Your task to perform on an android device: Go to battery settings Image 0: 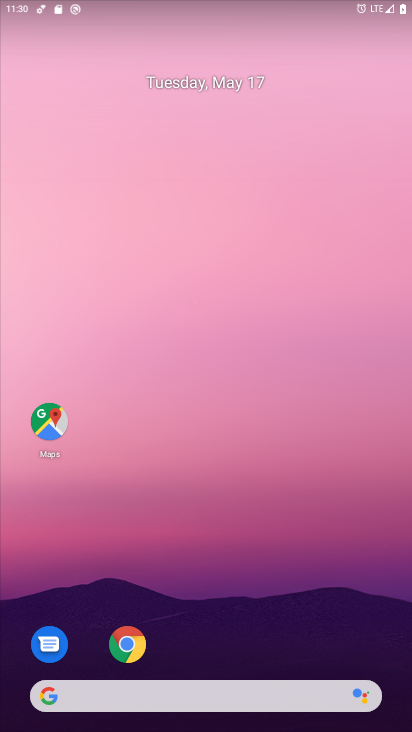
Step 0: drag from (200, 660) to (195, 178)
Your task to perform on an android device: Go to battery settings Image 1: 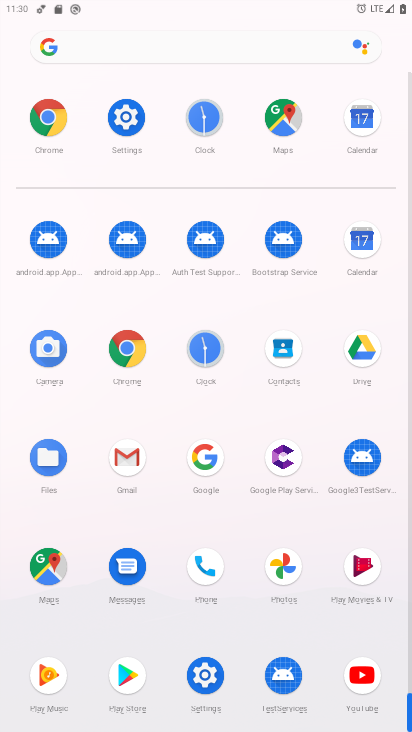
Step 1: click (123, 115)
Your task to perform on an android device: Go to battery settings Image 2: 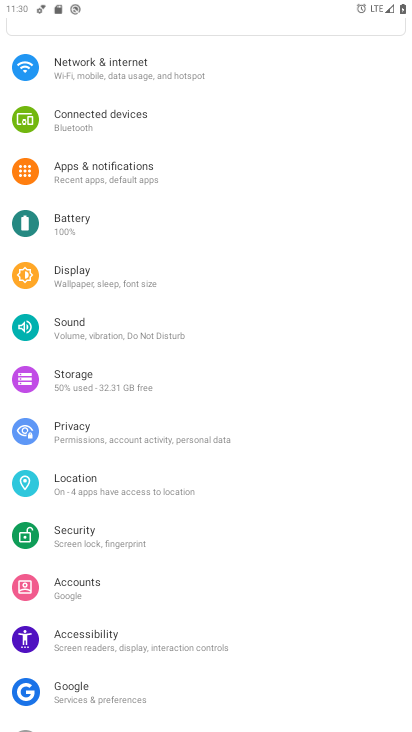
Step 2: click (85, 220)
Your task to perform on an android device: Go to battery settings Image 3: 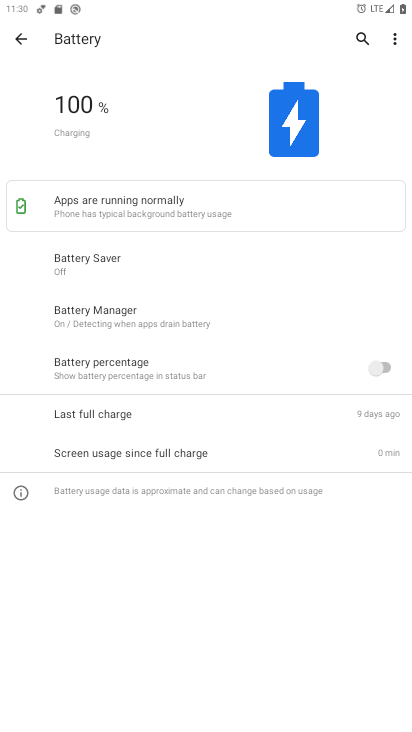
Step 3: task complete